Your task to perform on an android device: open app "Adobe Acrobat Reader" (install if not already installed), go to login, and select forgot password Image 0: 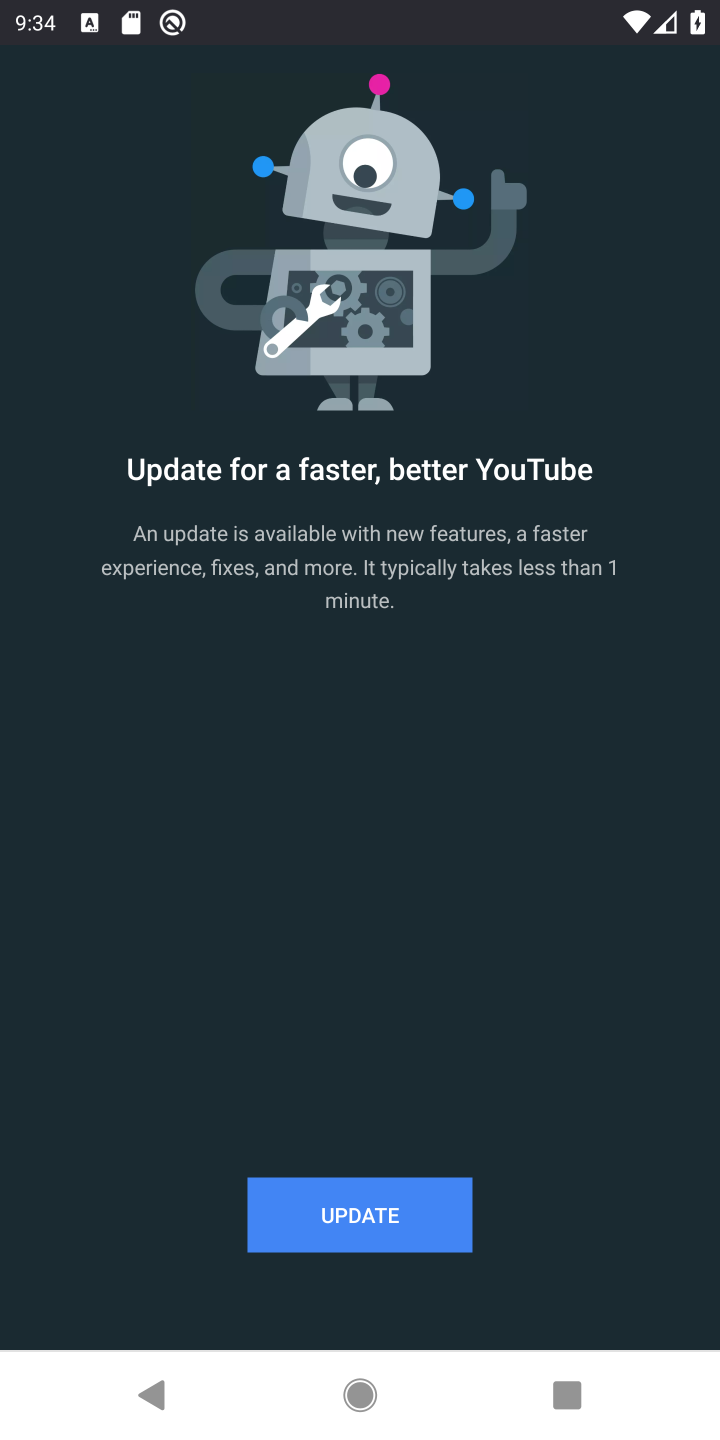
Step 0: press home button
Your task to perform on an android device: open app "Adobe Acrobat Reader" (install if not already installed), go to login, and select forgot password Image 1: 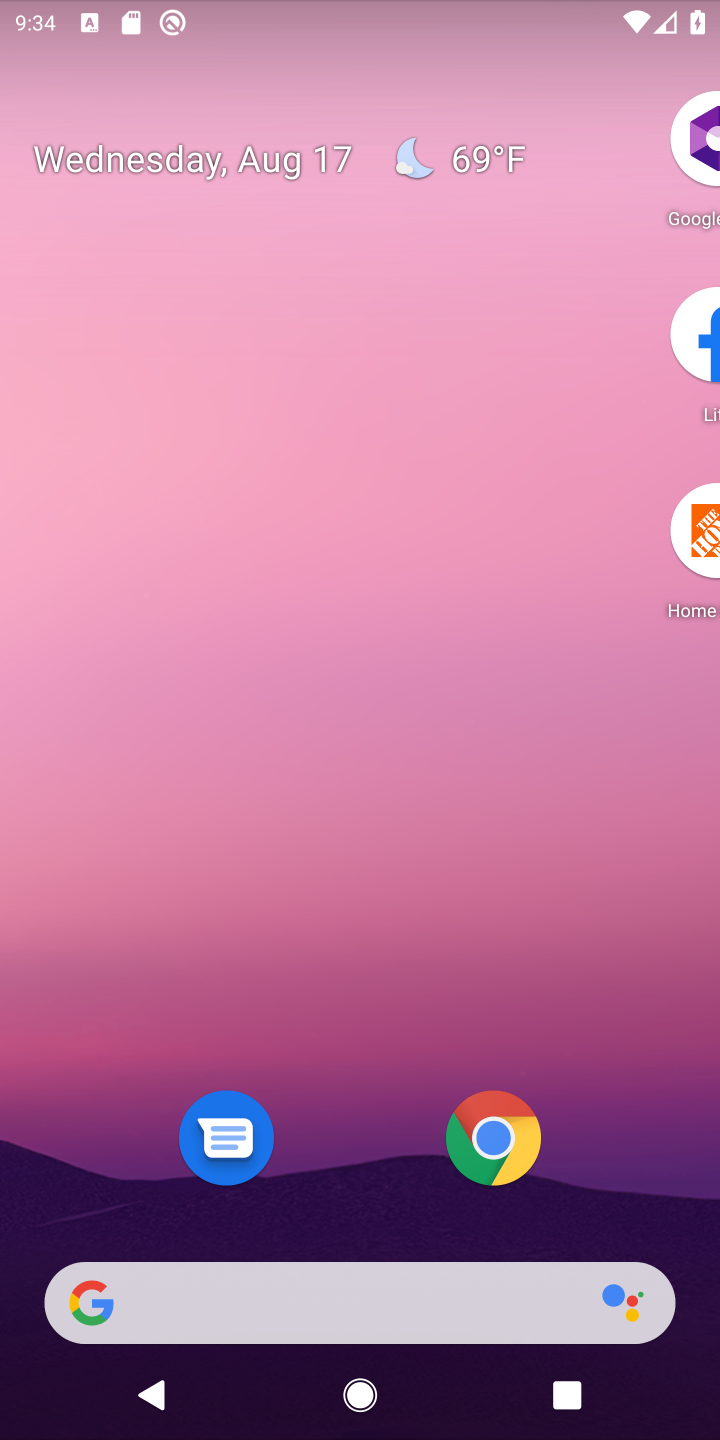
Step 1: drag from (289, 1330) to (298, 832)
Your task to perform on an android device: open app "Adobe Acrobat Reader" (install if not already installed), go to login, and select forgot password Image 2: 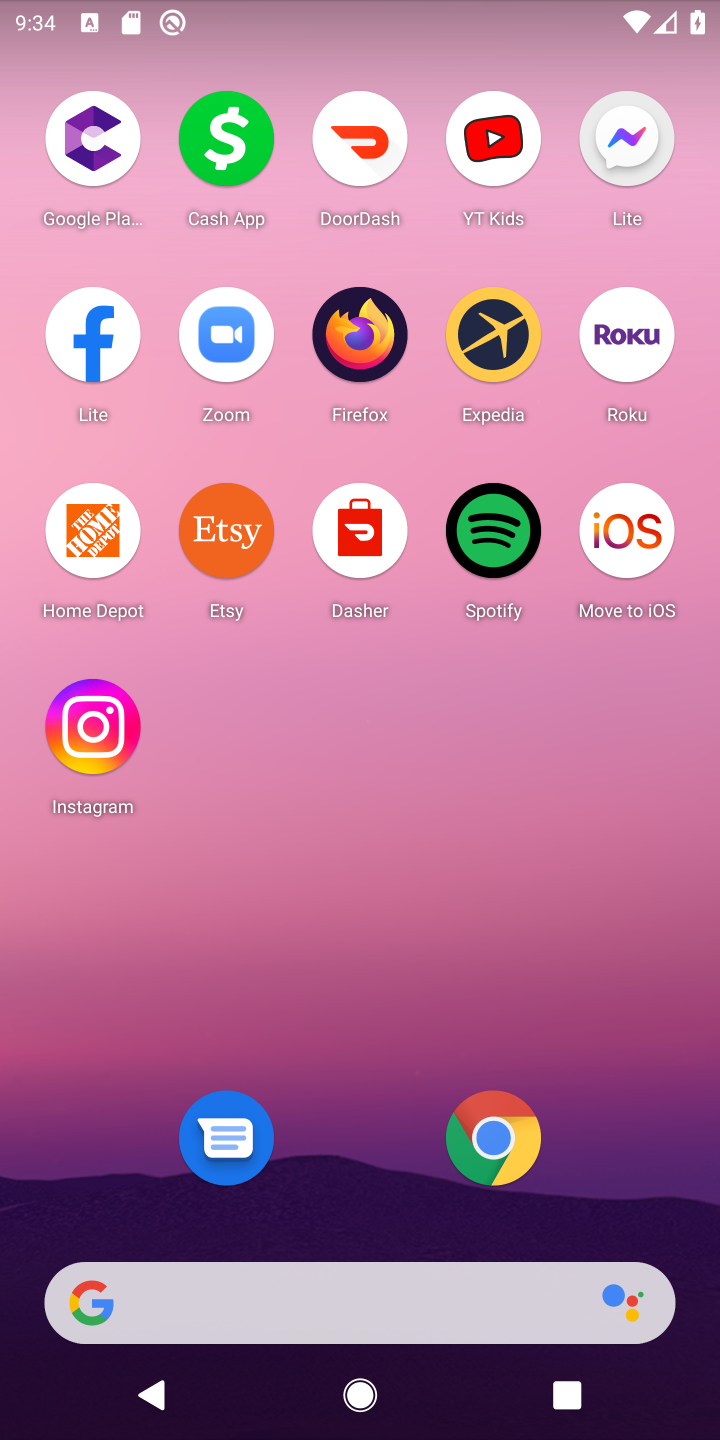
Step 2: drag from (333, 1153) to (336, 785)
Your task to perform on an android device: open app "Adobe Acrobat Reader" (install if not already installed), go to login, and select forgot password Image 3: 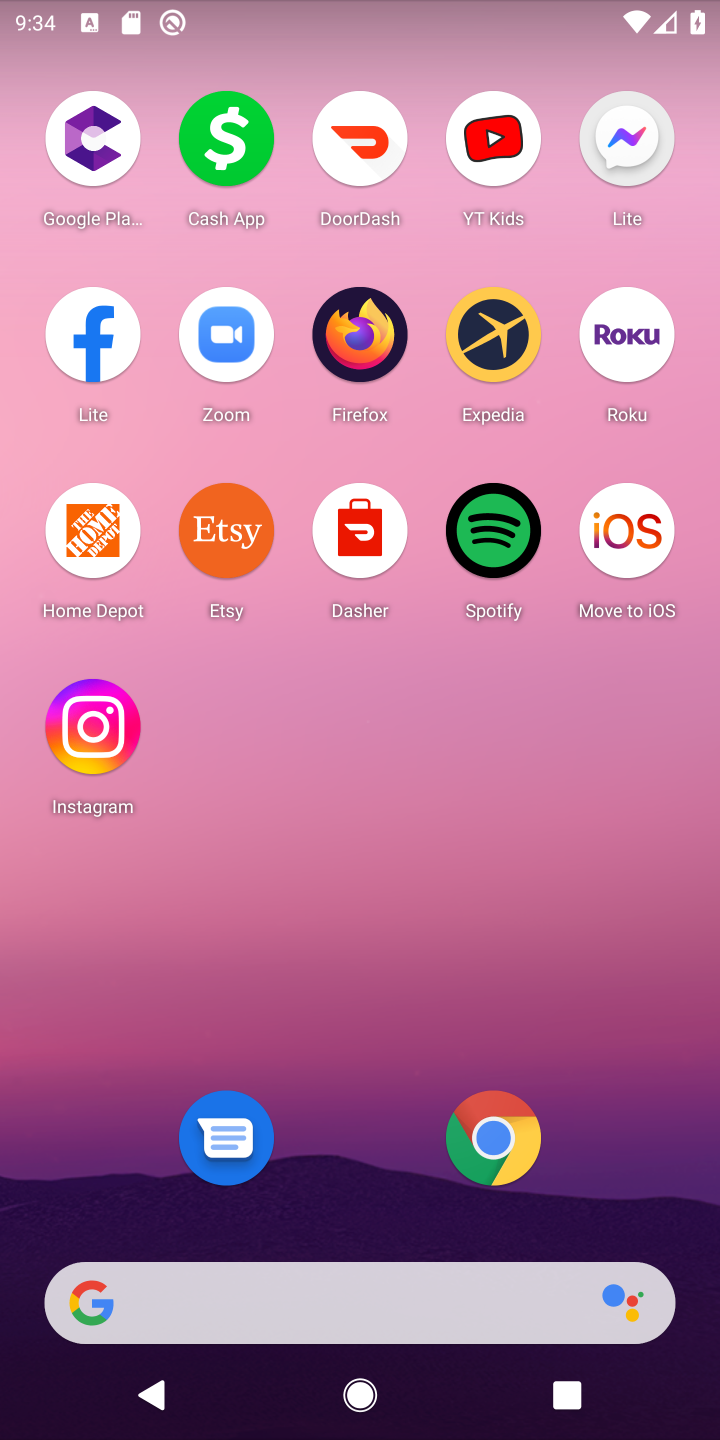
Step 3: drag from (416, 1286) to (360, 763)
Your task to perform on an android device: open app "Adobe Acrobat Reader" (install if not already installed), go to login, and select forgot password Image 4: 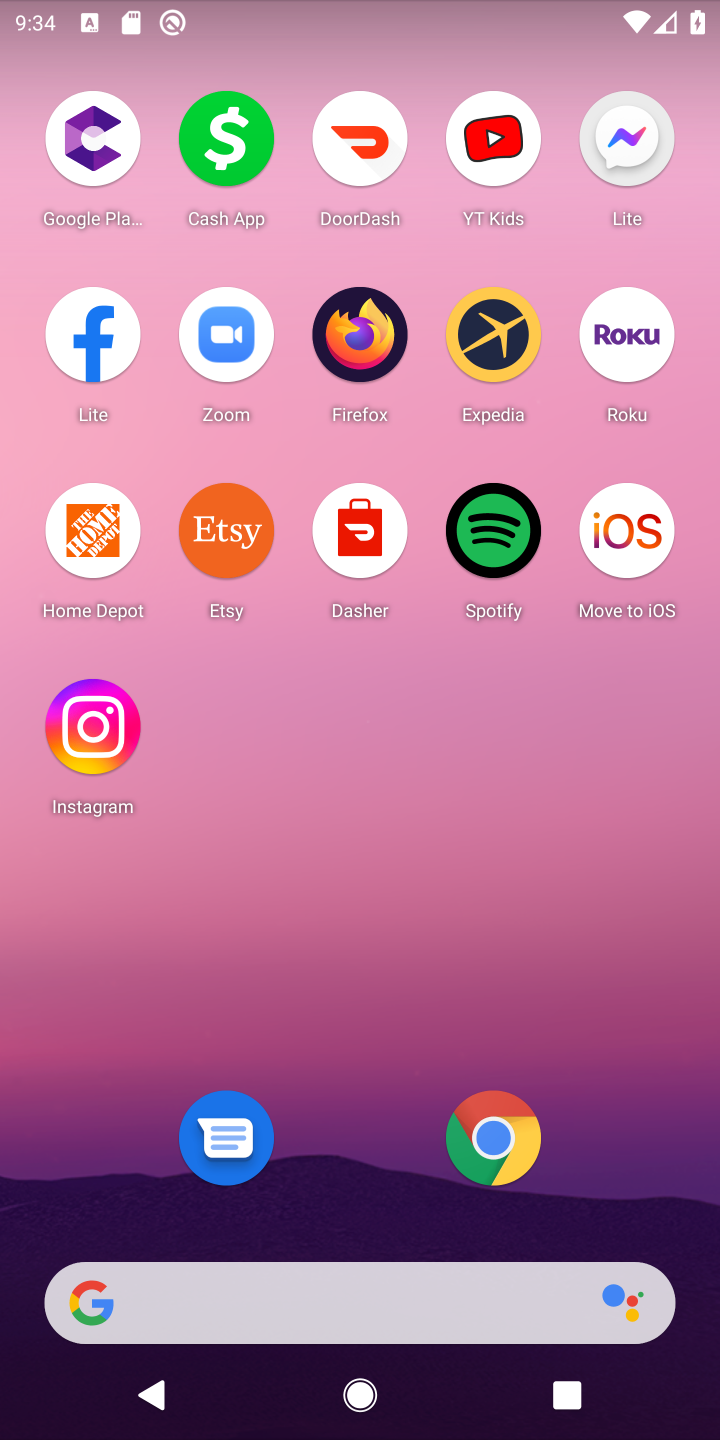
Step 4: drag from (341, 769) to (336, 421)
Your task to perform on an android device: open app "Adobe Acrobat Reader" (install if not already installed), go to login, and select forgot password Image 5: 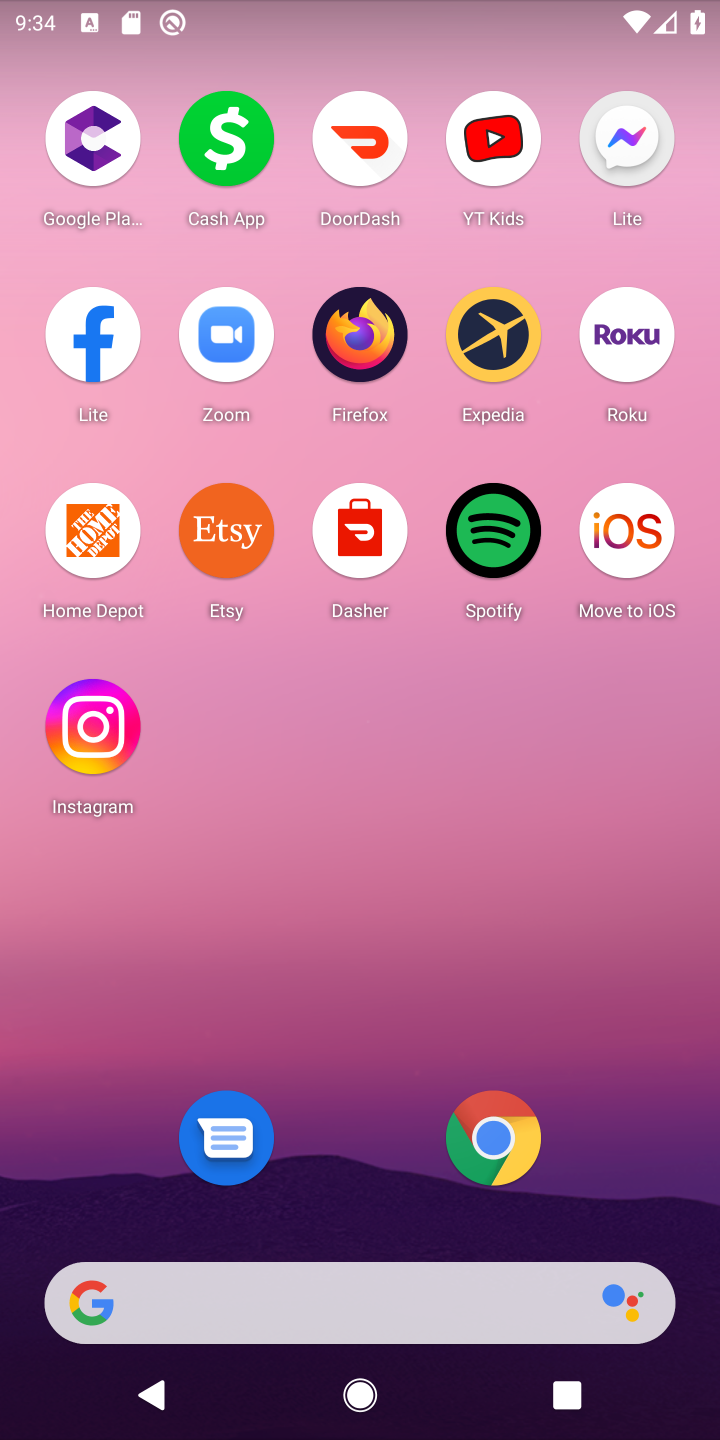
Step 5: drag from (364, 1236) to (421, 369)
Your task to perform on an android device: open app "Adobe Acrobat Reader" (install if not already installed), go to login, and select forgot password Image 6: 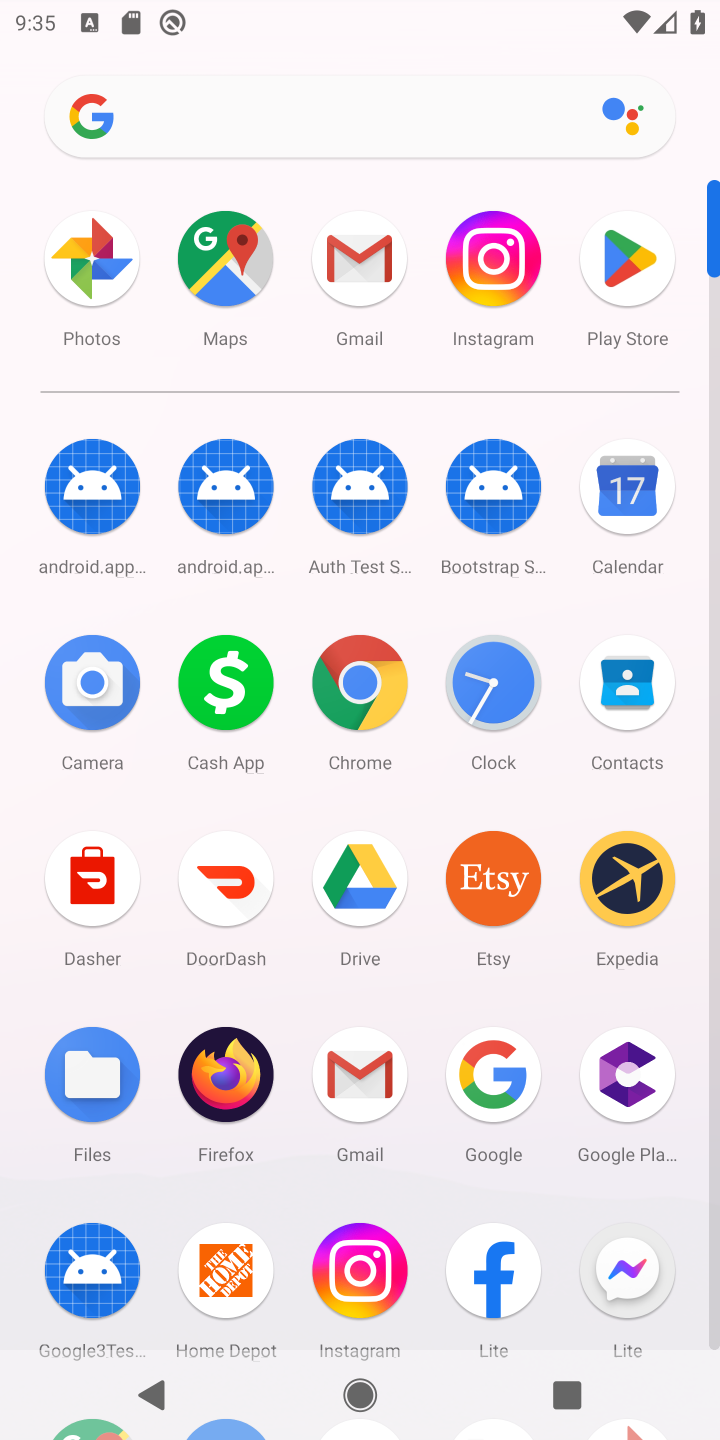
Step 6: click (617, 283)
Your task to perform on an android device: open app "Adobe Acrobat Reader" (install if not already installed), go to login, and select forgot password Image 7: 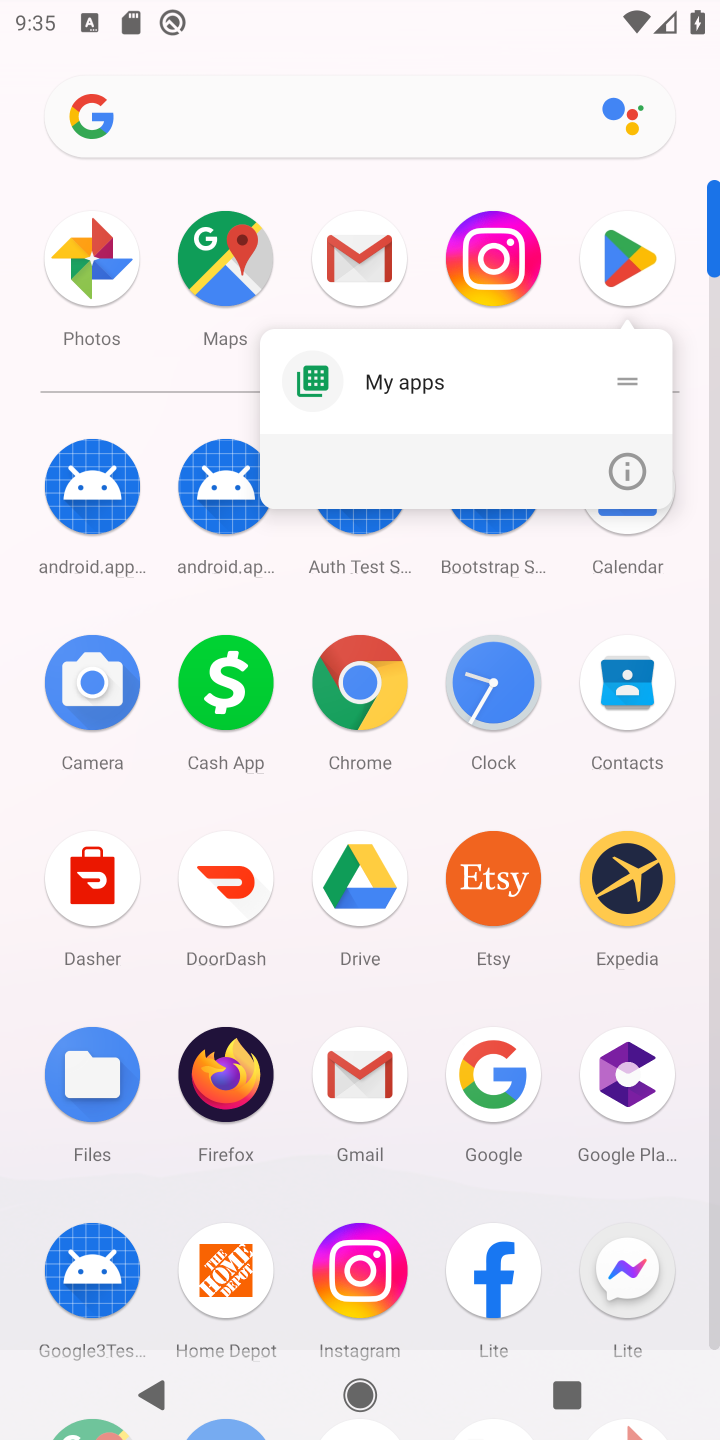
Step 7: click (617, 283)
Your task to perform on an android device: open app "Adobe Acrobat Reader" (install if not already installed), go to login, and select forgot password Image 8: 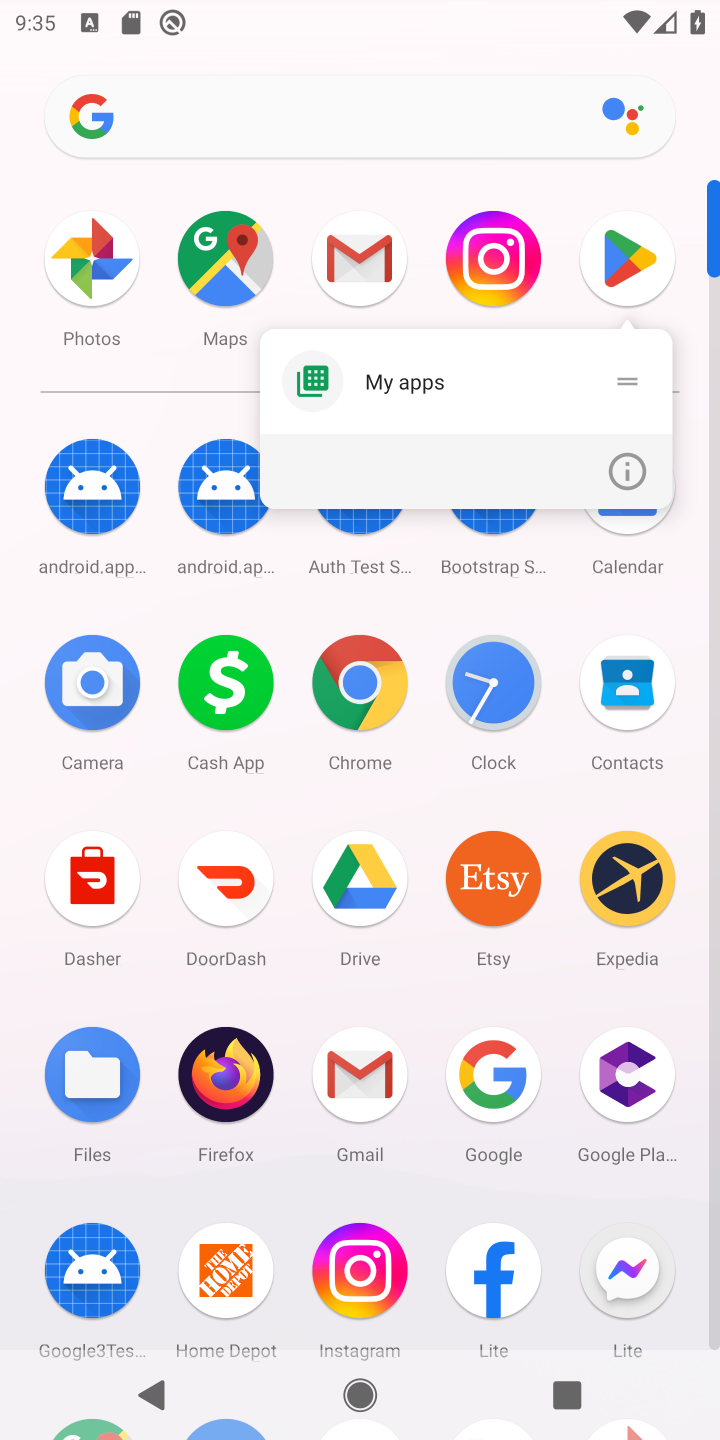
Step 8: click (656, 269)
Your task to perform on an android device: open app "Adobe Acrobat Reader" (install if not already installed), go to login, and select forgot password Image 9: 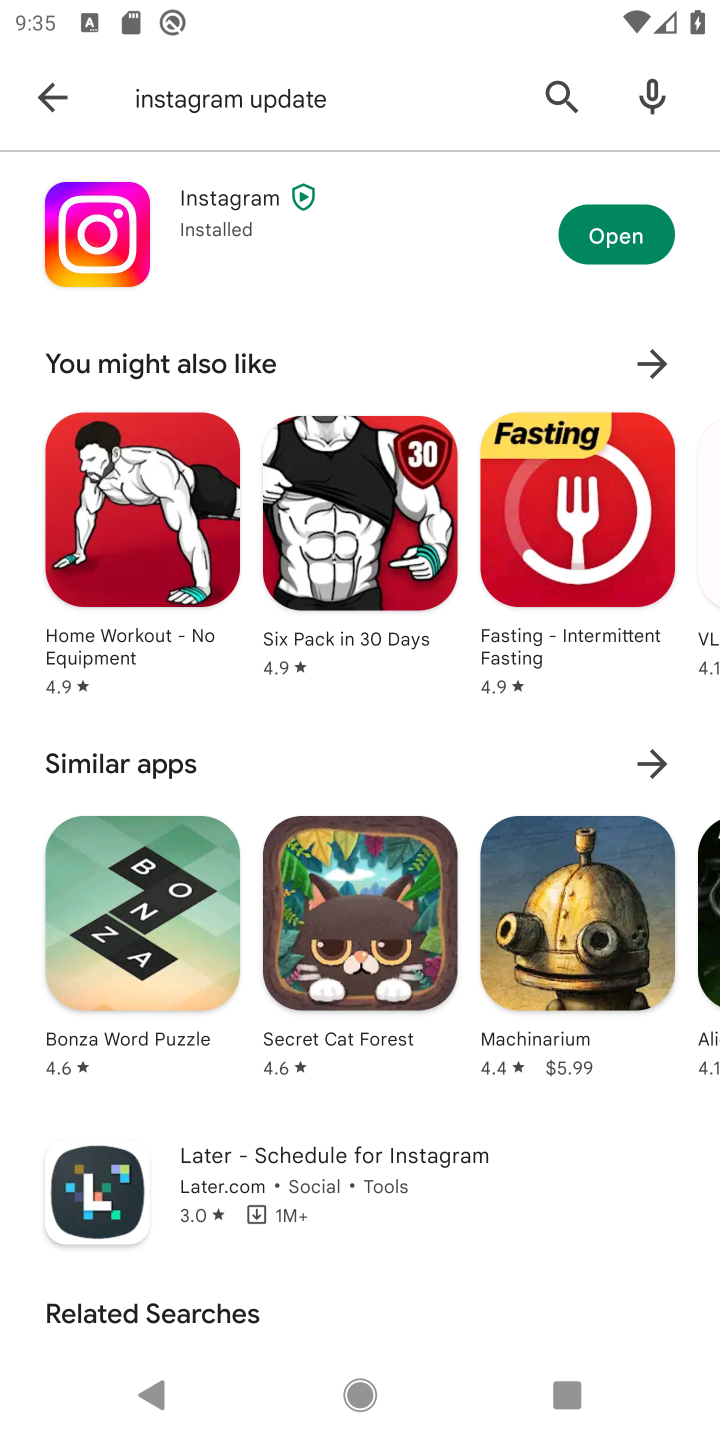
Step 9: click (62, 105)
Your task to perform on an android device: open app "Adobe Acrobat Reader" (install if not already installed), go to login, and select forgot password Image 10: 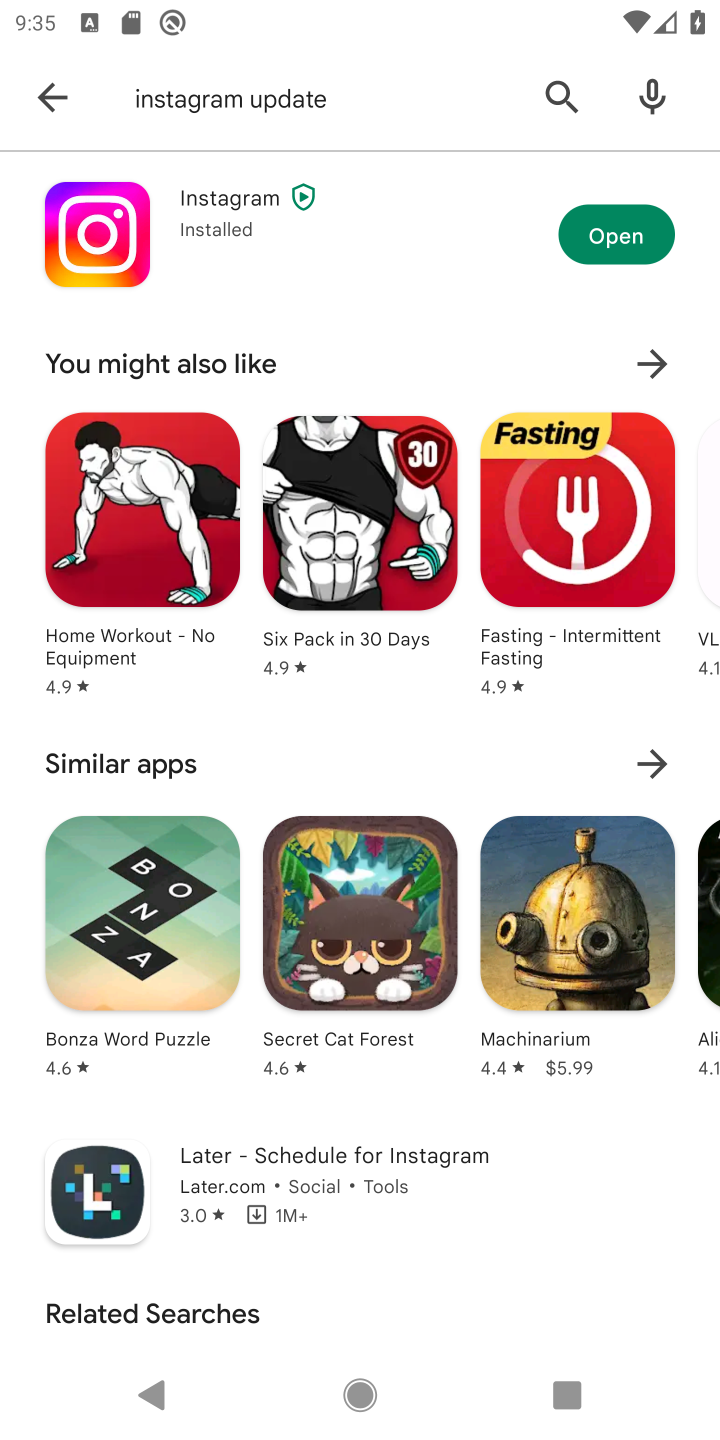
Step 10: click (47, 90)
Your task to perform on an android device: open app "Adobe Acrobat Reader" (install if not already installed), go to login, and select forgot password Image 11: 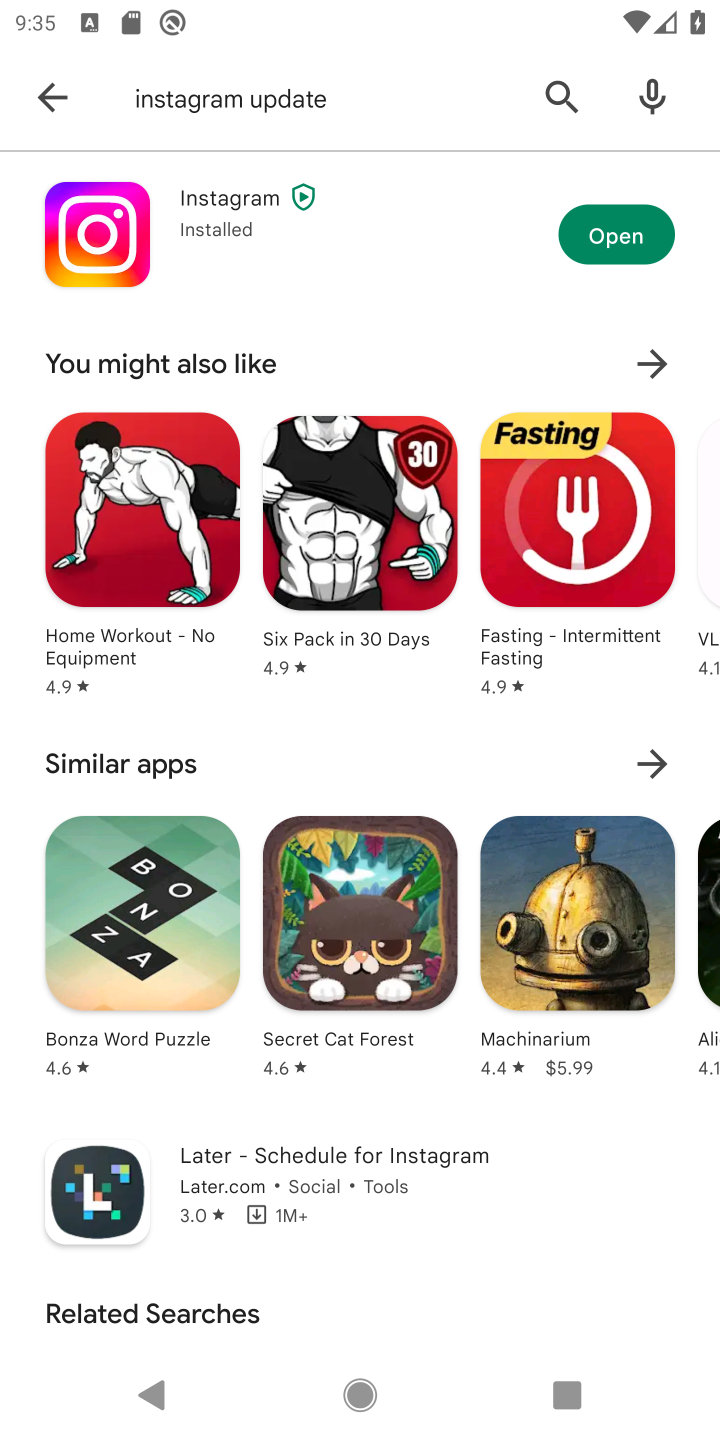
Step 11: click (82, 95)
Your task to perform on an android device: open app "Adobe Acrobat Reader" (install if not already installed), go to login, and select forgot password Image 12: 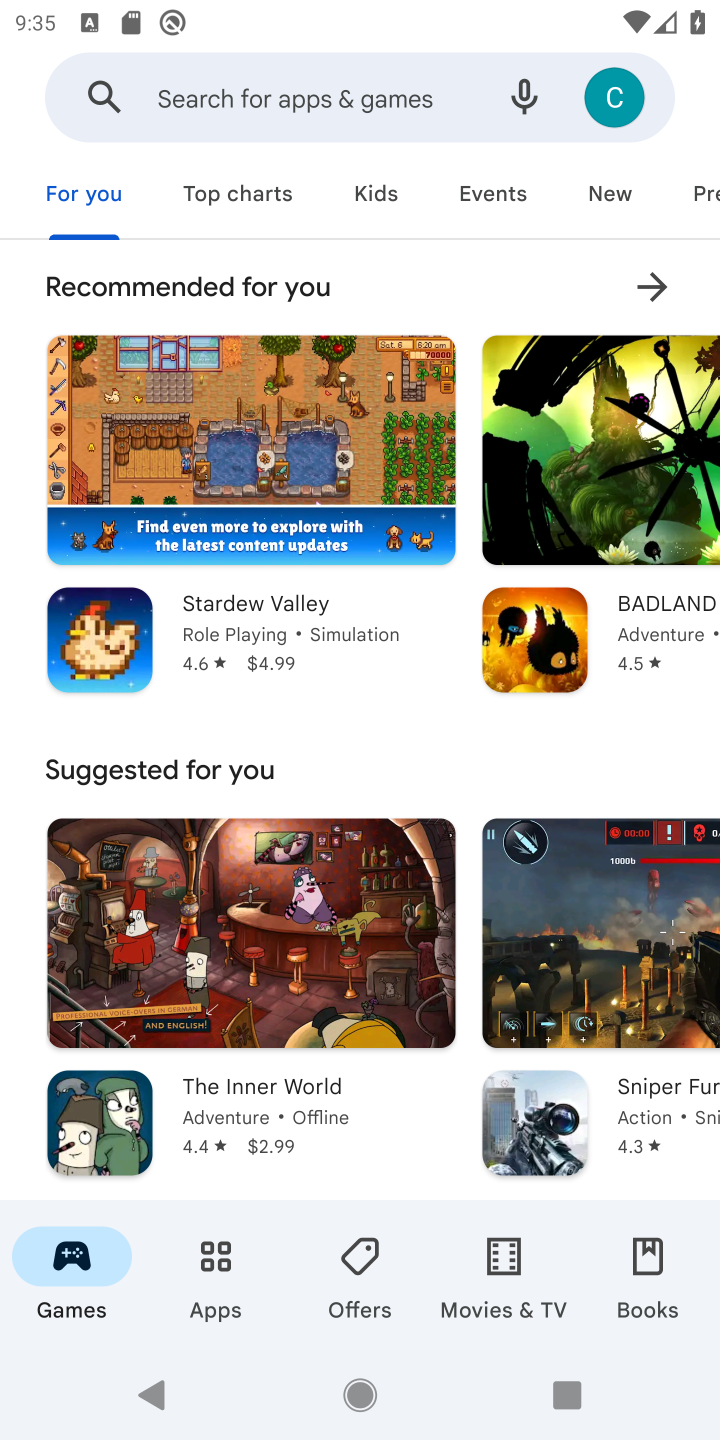
Step 12: click (281, 100)
Your task to perform on an android device: open app "Adobe Acrobat Reader" (install if not already installed), go to login, and select forgot password Image 13: 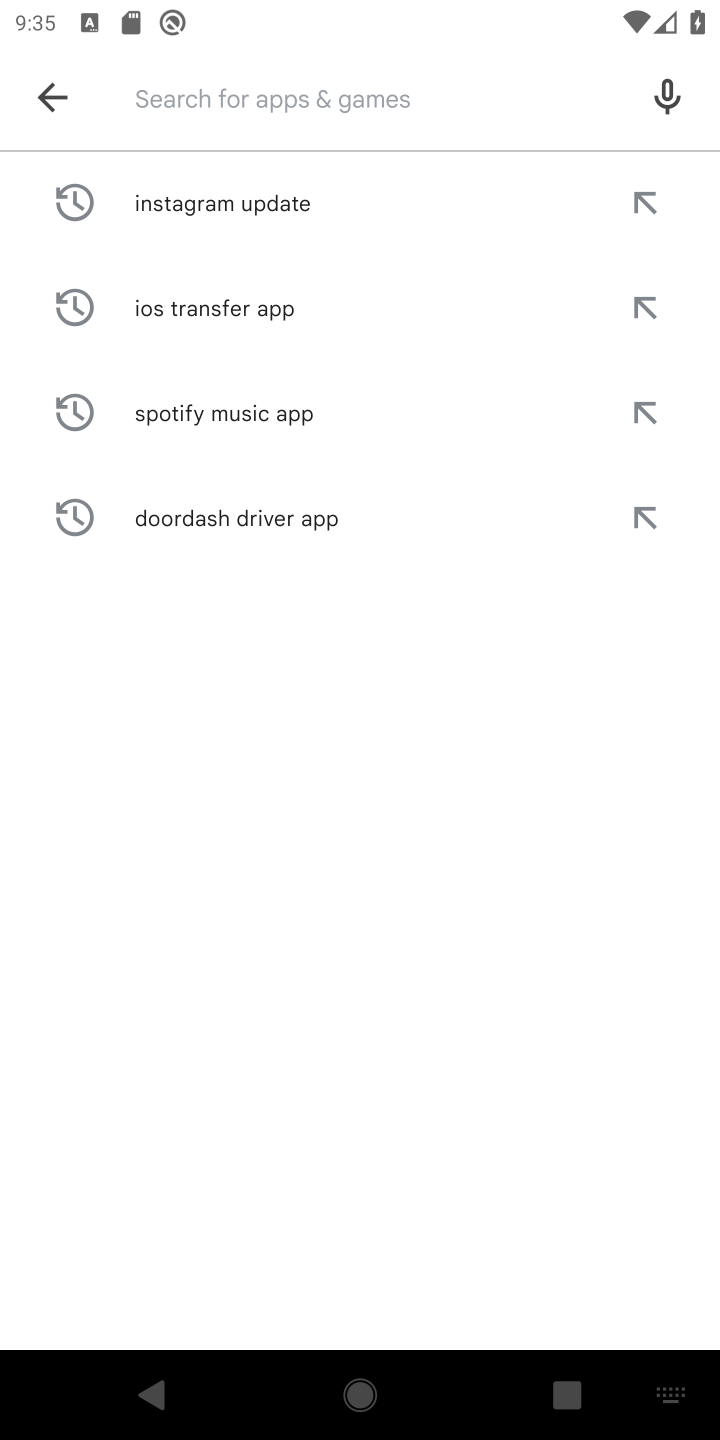
Step 13: type "Adobe Acrobat Reader "
Your task to perform on an android device: open app "Adobe Acrobat Reader" (install if not already installed), go to login, and select forgot password Image 14: 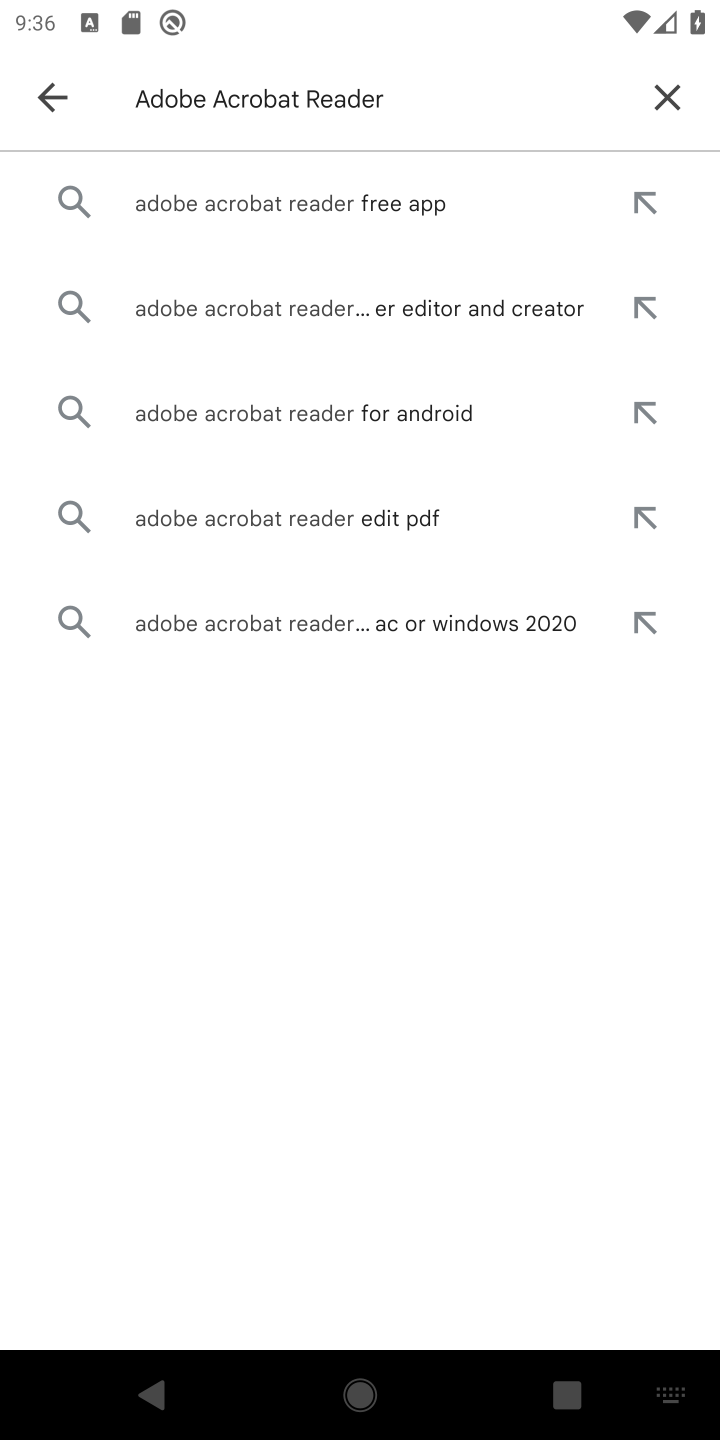
Step 14: click (155, 212)
Your task to perform on an android device: open app "Adobe Acrobat Reader" (install if not already installed), go to login, and select forgot password Image 15: 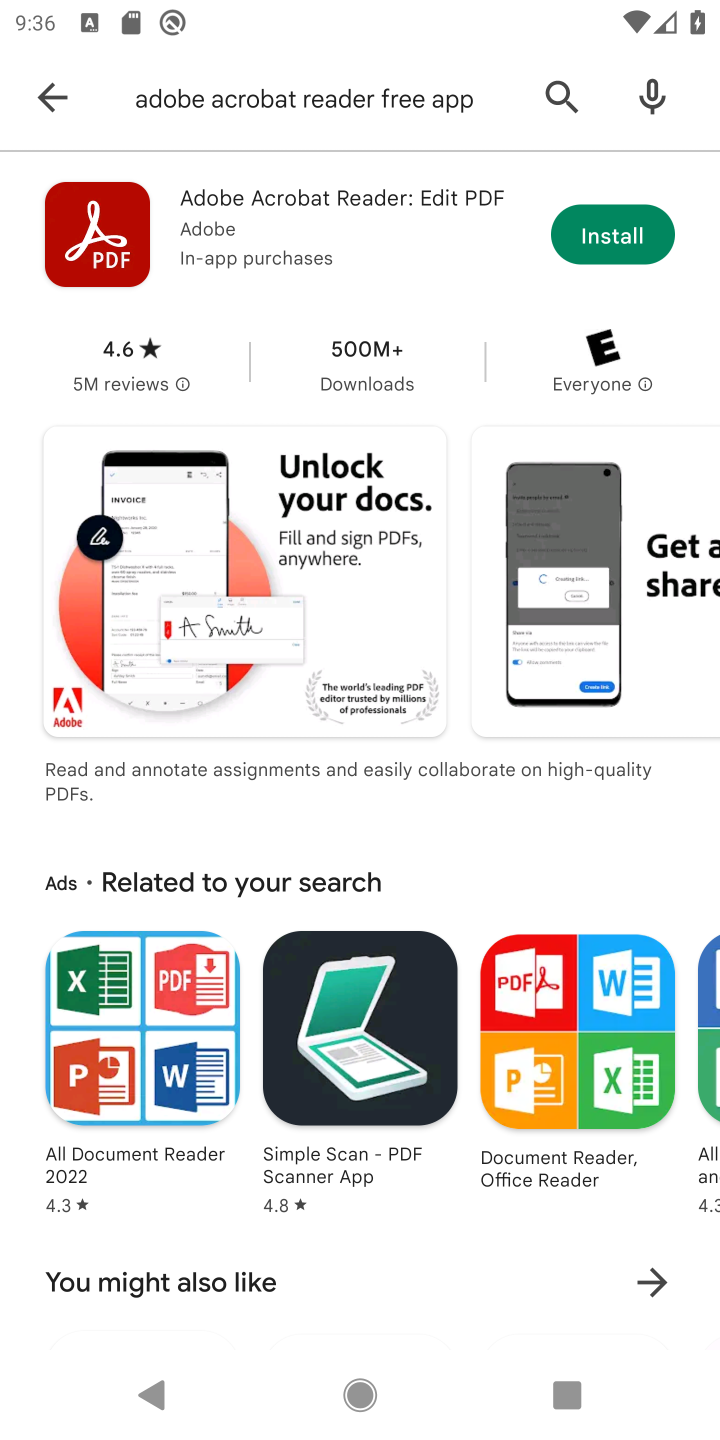
Step 15: click (592, 215)
Your task to perform on an android device: open app "Adobe Acrobat Reader" (install if not already installed), go to login, and select forgot password Image 16: 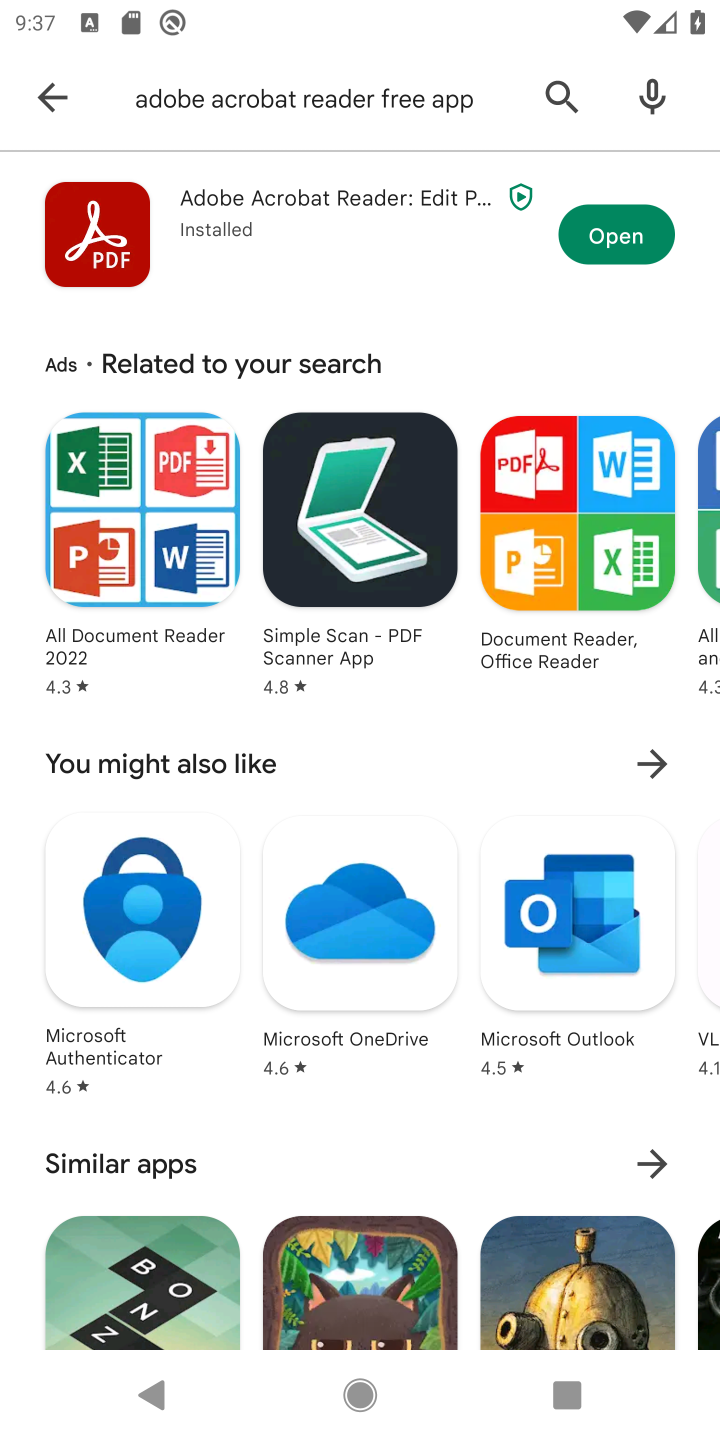
Step 16: click (581, 220)
Your task to perform on an android device: open app "Adobe Acrobat Reader" (install if not already installed), go to login, and select forgot password Image 17: 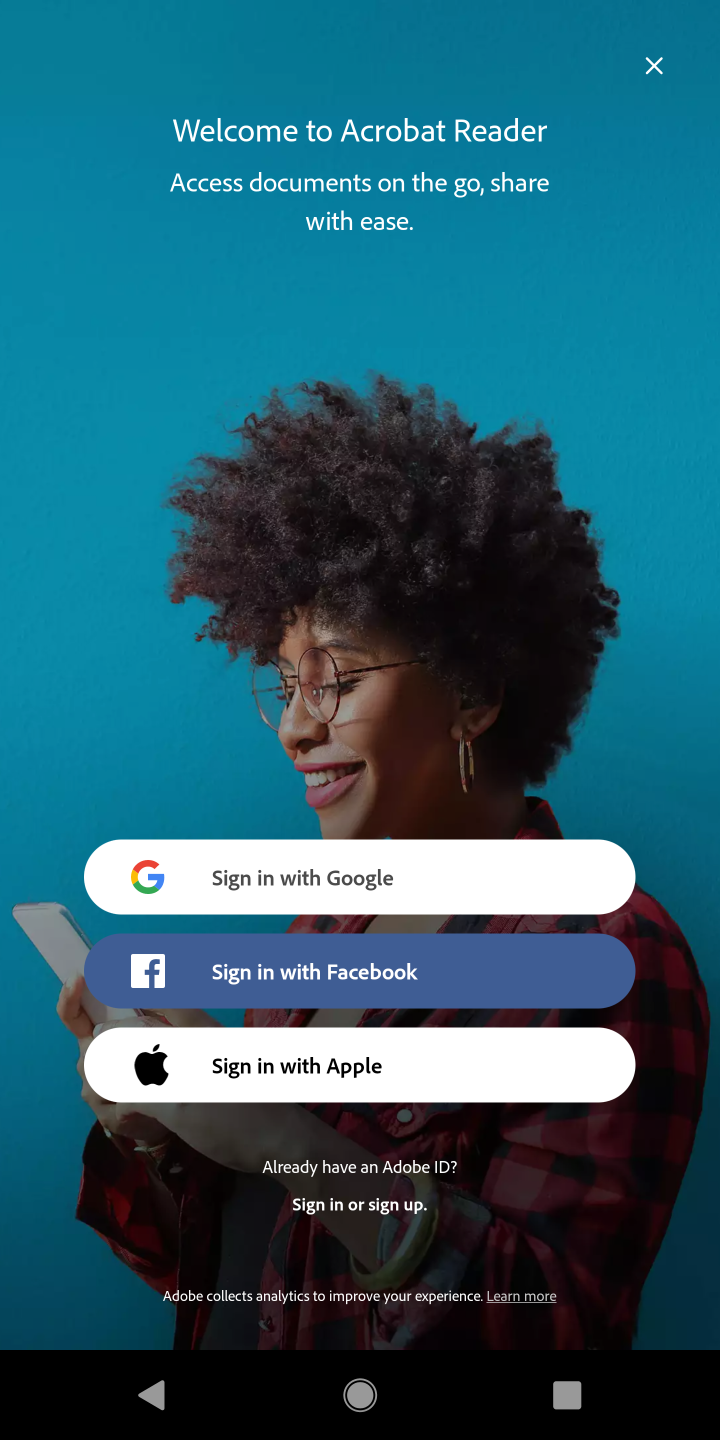
Step 17: task complete